Your task to perform on an android device: Go to location settings Image 0: 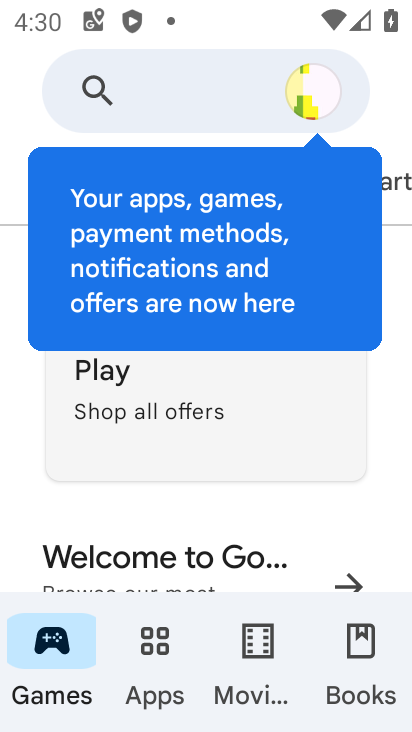
Step 0: press home button
Your task to perform on an android device: Go to location settings Image 1: 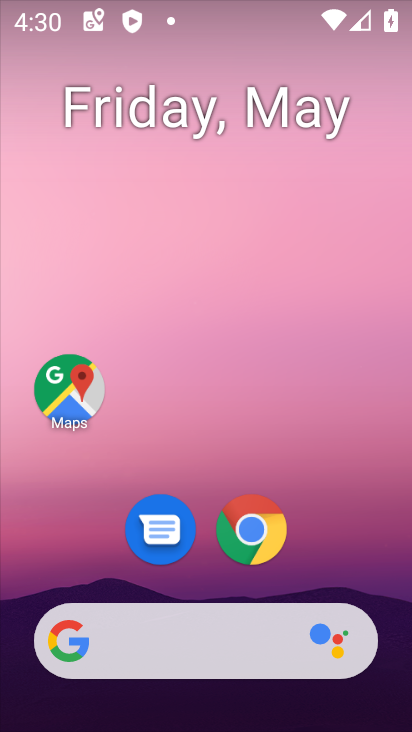
Step 1: drag from (82, 584) to (171, 181)
Your task to perform on an android device: Go to location settings Image 2: 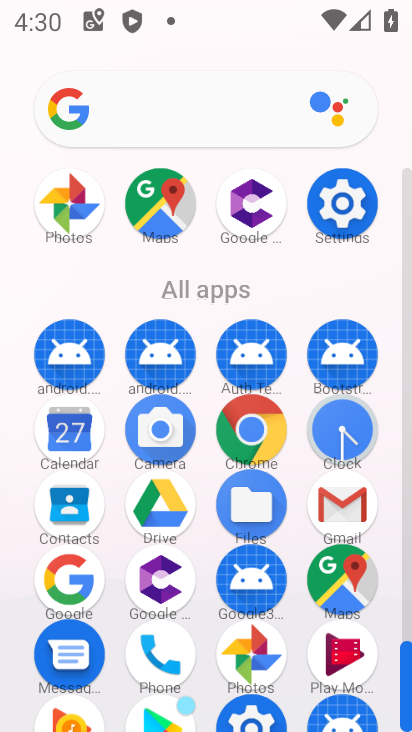
Step 2: drag from (131, 588) to (213, 375)
Your task to perform on an android device: Go to location settings Image 3: 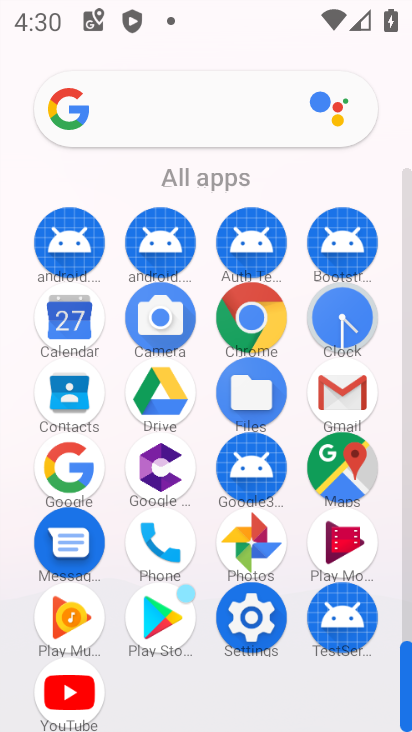
Step 3: click (256, 618)
Your task to perform on an android device: Go to location settings Image 4: 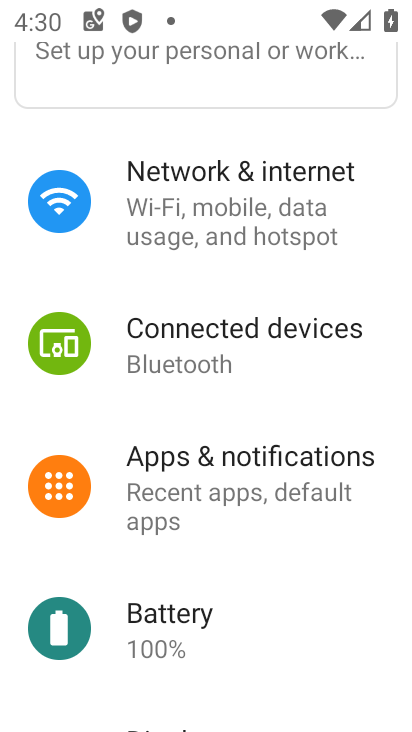
Step 4: drag from (233, 651) to (354, 271)
Your task to perform on an android device: Go to location settings Image 5: 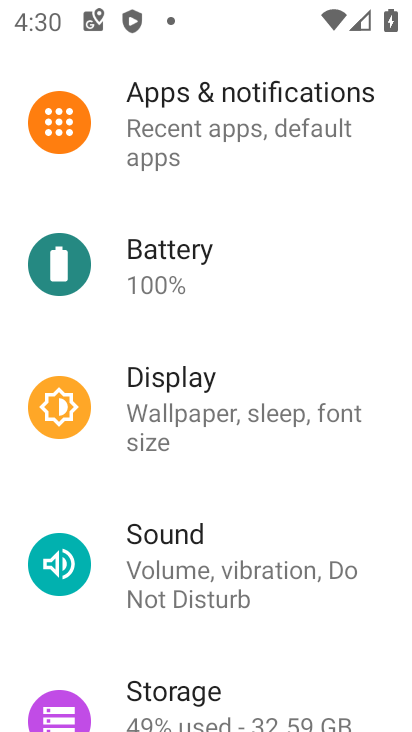
Step 5: drag from (281, 618) to (406, 245)
Your task to perform on an android device: Go to location settings Image 6: 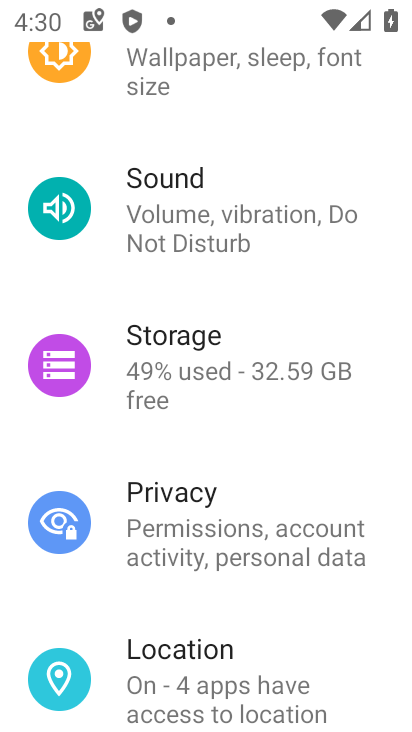
Step 6: click (227, 674)
Your task to perform on an android device: Go to location settings Image 7: 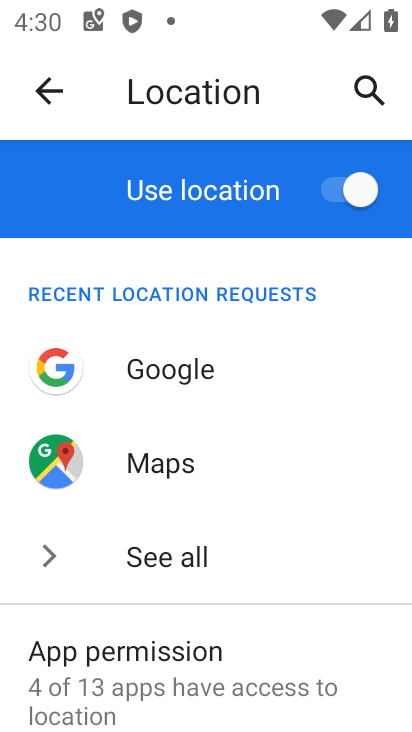
Step 7: task complete